Your task to perform on an android device: Open Wikipedia Image 0: 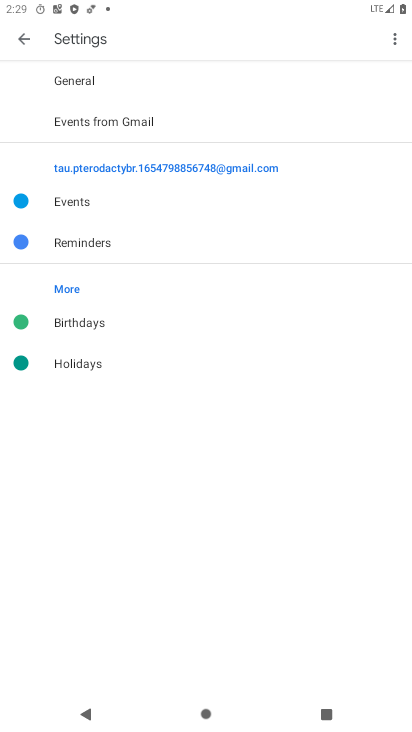
Step 0: press home button
Your task to perform on an android device: Open Wikipedia Image 1: 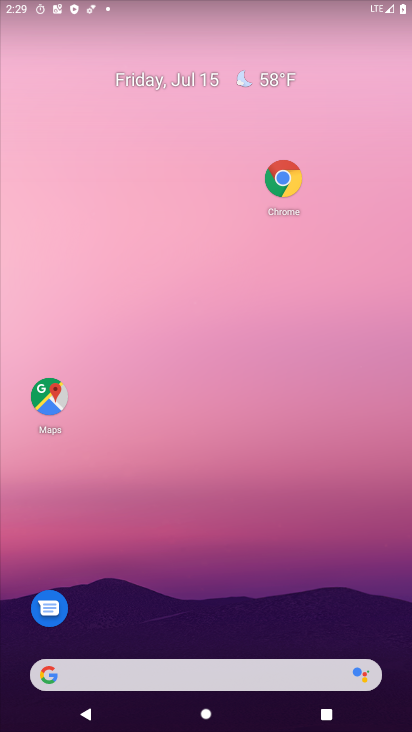
Step 1: drag from (276, 624) to (267, 96)
Your task to perform on an android device: Open Wikipedia Image 2: 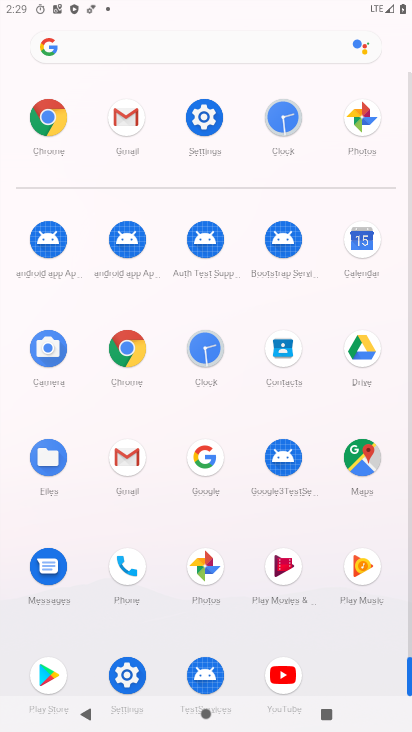
Step 2: click (121, 346)
Your task to perform on an android device: Open Wikipedia Image 3: 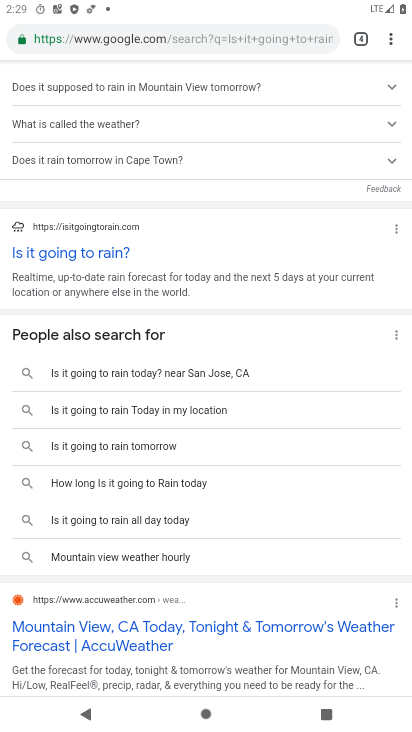
Step 3: click (273, 37)
Your task to perform on an android device: Open Wikipedia Image 4: 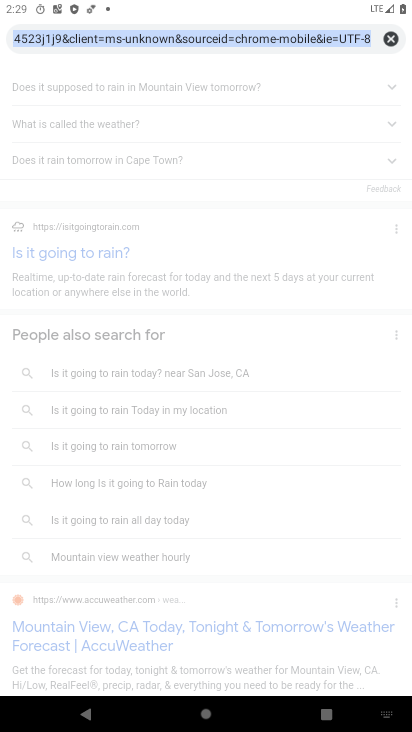
Step 4: click (386, 37)
Your task to perform on an android device: Open Wikipedia Image 5: 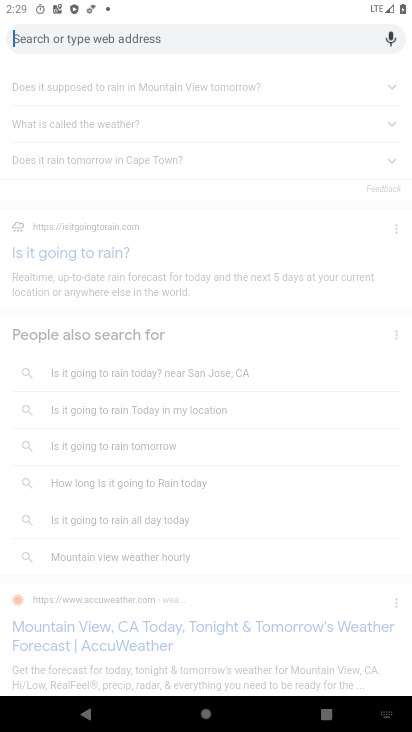
Step 5: type "Wikipedia"
Your task to perform on an android device: Open Wikipedia Image 6: 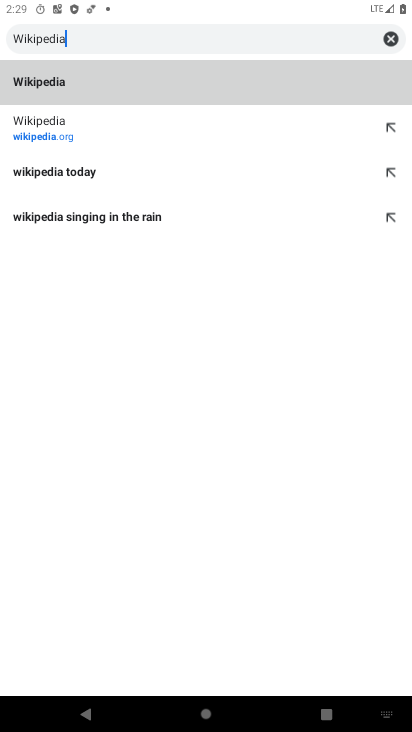
Step 6: click (37, 132)
Your task to perform on an android device: Open Wikipedia Image 7: 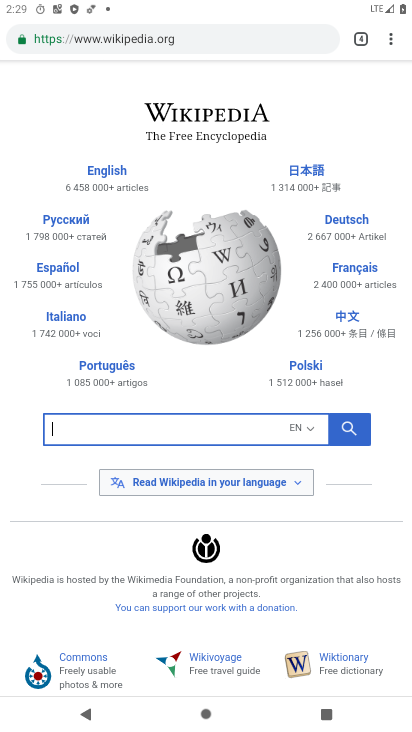
Step 7: task complete